Your task to perform on an android device: check storage Image 0: 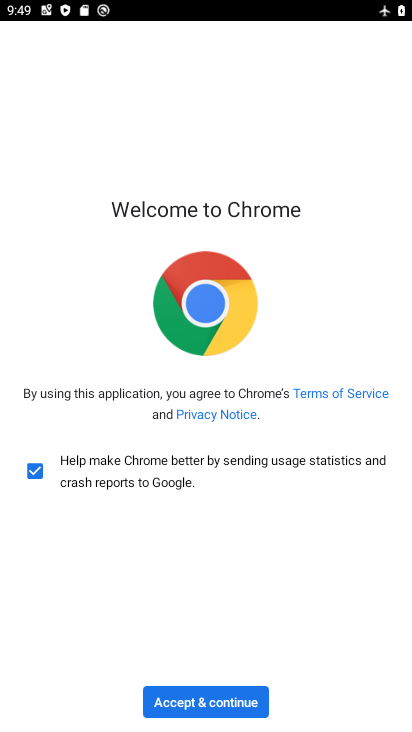
Step 0: press home button
Your task to perform on an android device: check storage Image 1: 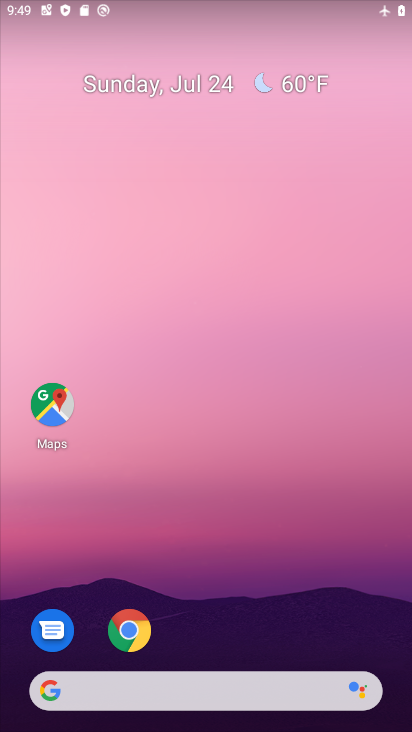
Step 1: drag from (204, 633) to (269, 1)
Your task to perform on an android device: check storage Image 2: 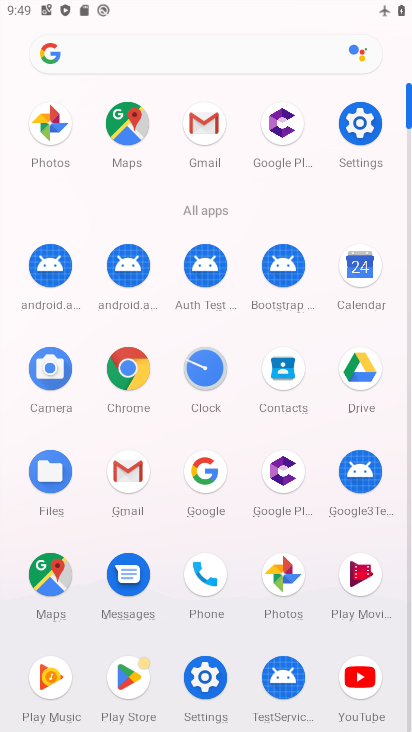
Step 2: click (209, 687)
Your task to perform on an android device: check storage Image 3: 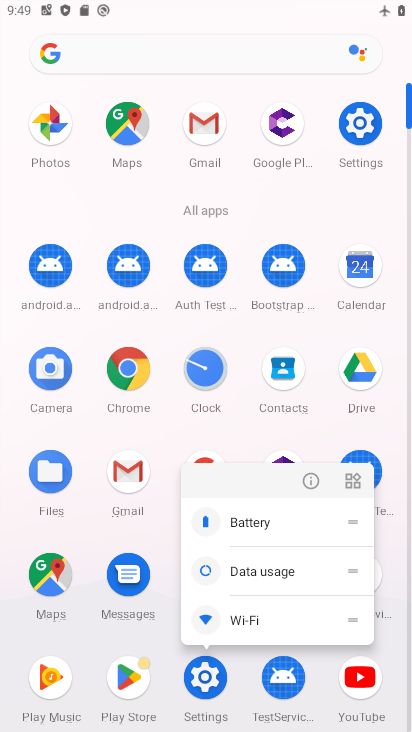
Step 3: click (201, 690)
Your task to perform on an android device: check storage Image 4: 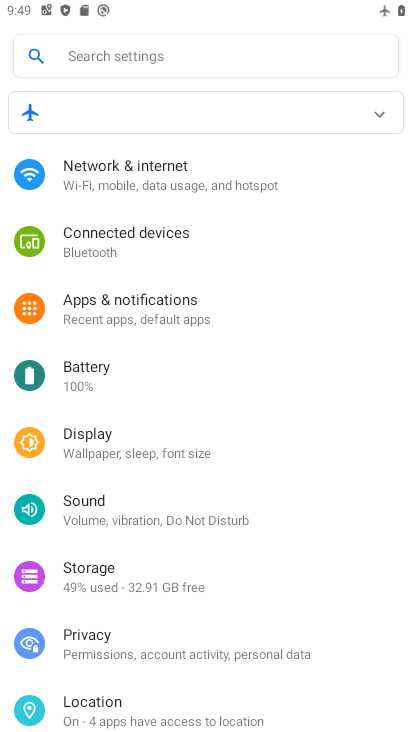
Step 4: click (96, 575)
Your task to perform on an android device: check storage Image 5: 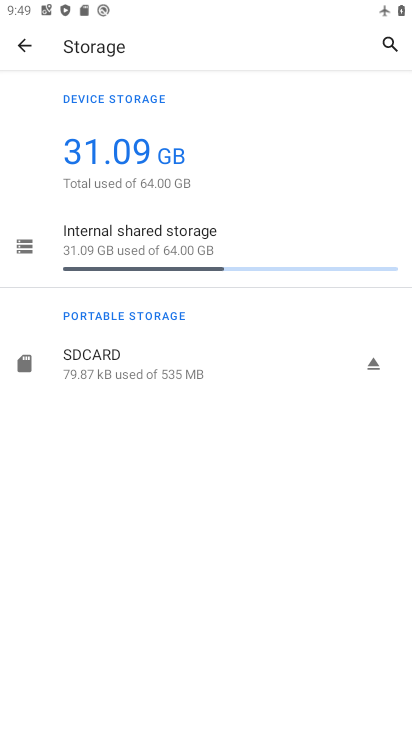
Step 5: click (152, 253)
Your task to perform on an android device: check storage Image 6: 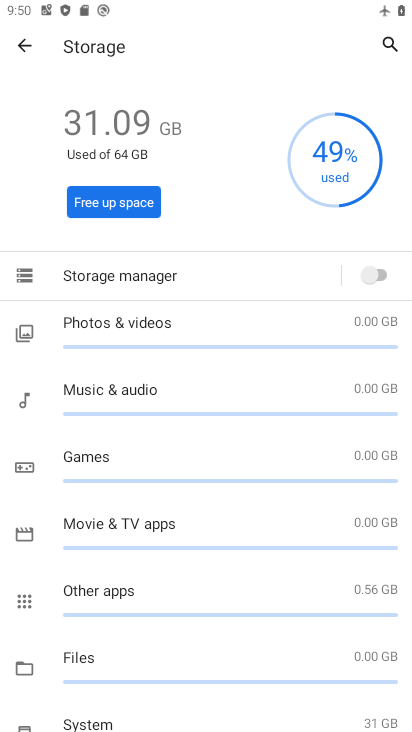
Step 6: task complete